Your task to perform on an android device: Open accessibility settings Image 0: 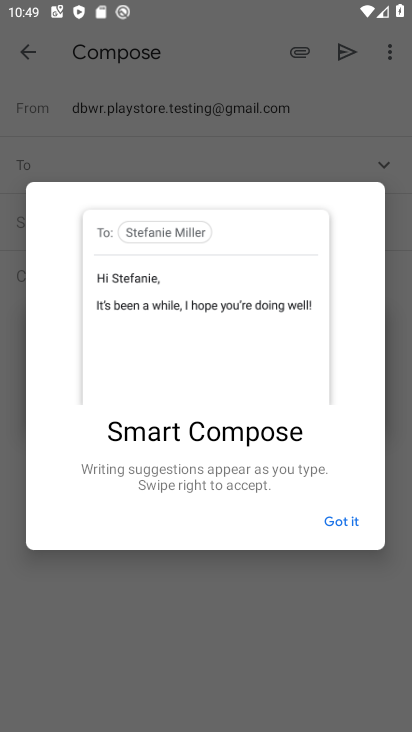
Step 0: press home button
Your task to perform on an android device: Open accessibility settings Image 1: 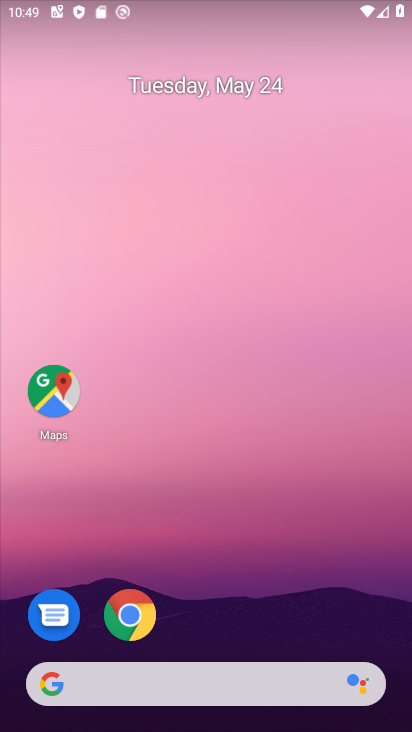
Step 1: drag from (336, 623) to (244, 131)
Your task to perform on an android device: Open accessibility settings Image 2: 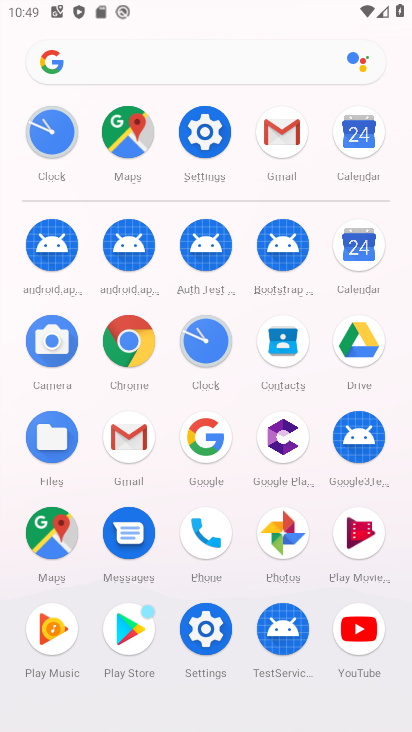
Step 2: click (187, 620)
Your task to perform on an android device: Open accessibility settings Image 3: 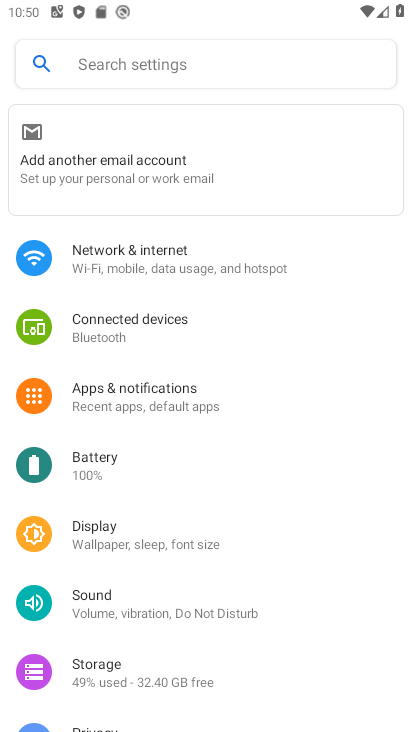
Step 3: drag from (185, 641) to (200, 271)
Your task to perform on an android device: Open accessibility settings Image 4: 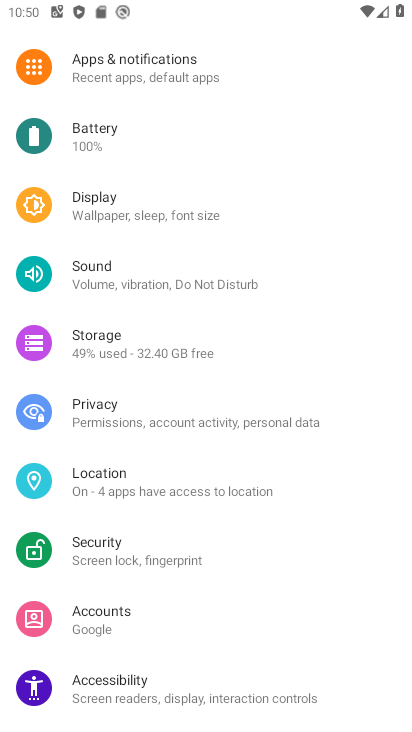
Step 4: click (95, 694)
Your task to perform on an android device: Open accessibility settings Image 5: 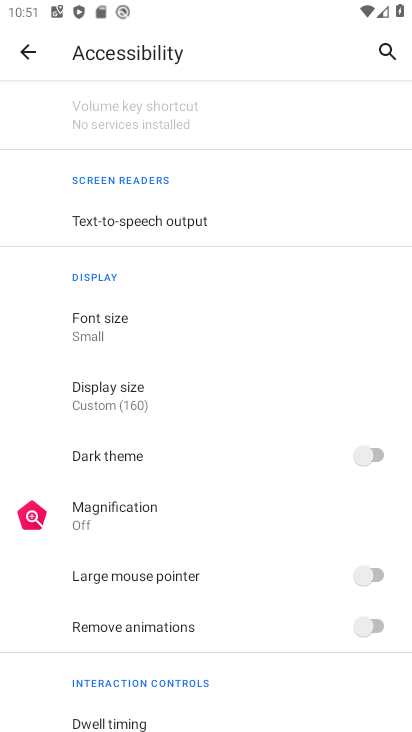
Step 5: task complete